Your task to perform on an android device: turn off data saver in the chrome app Image 0: 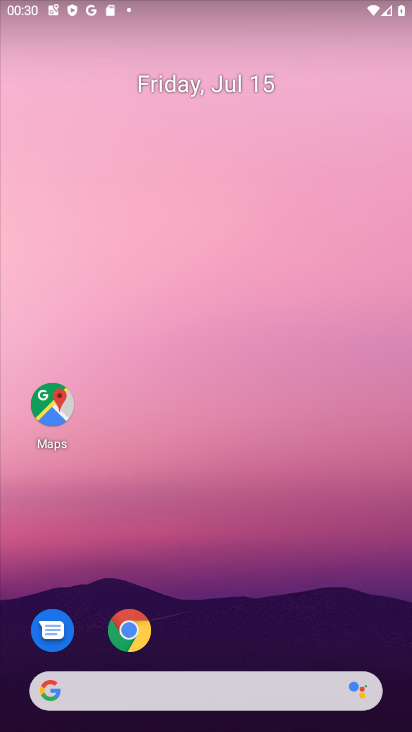
Step 0: click (135, 640)
Your task to perform on an android device: turn off data saver in the chrome app Image 1: 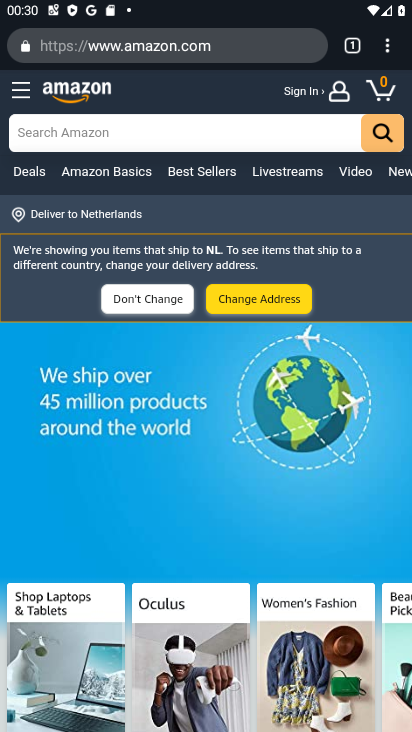
Step 1: click (392, 52)
Your task to perform on an android device: turn off data saver in the chrome app Image 2: 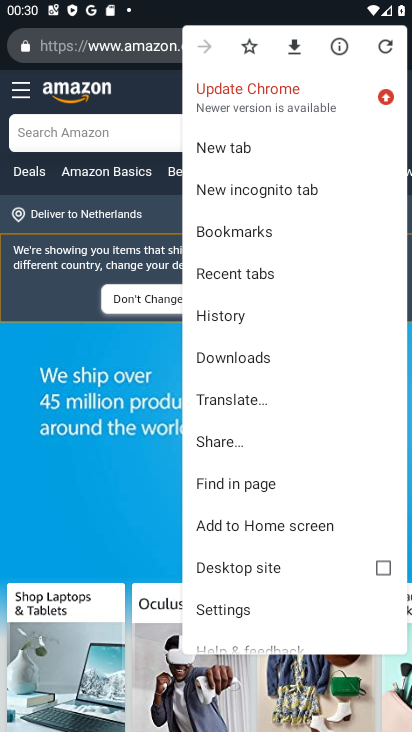
Step 2: click (242, 611)
Your task to perform on an android device: turn off data saver in the chrome app Image 3: 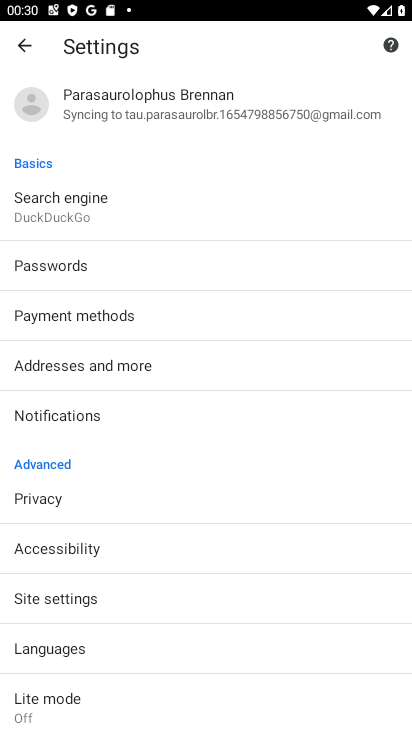
Step 3: task complete